Your task to perform on an android device: remove spam from my inbox in the gmail app Image 0: 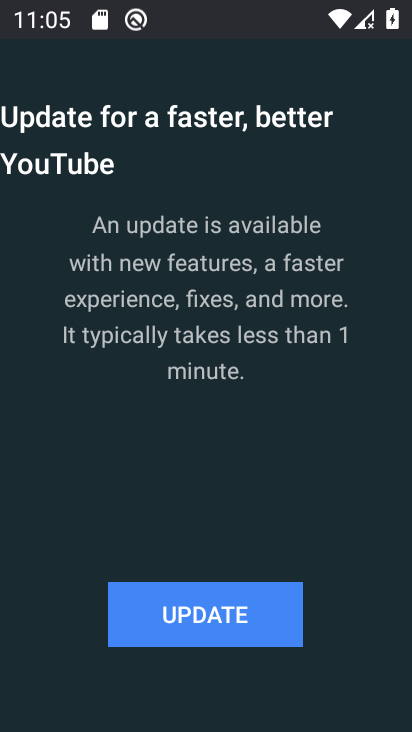
Step 0: press home button
Your task to perform on an android device: remove spam from my inbox in the gmail app Image 1: 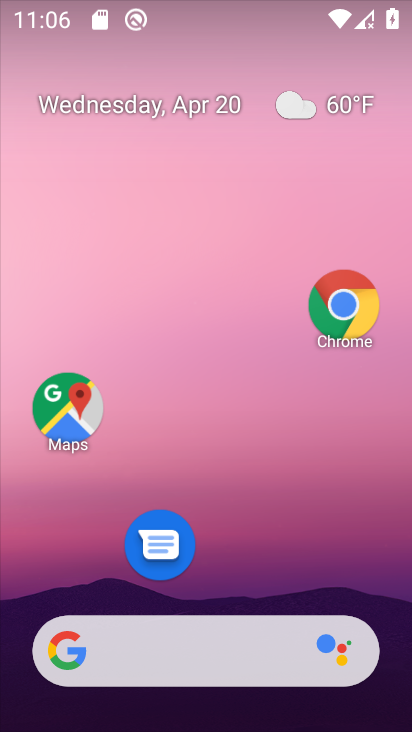
Step 1: drag from (193, 554) to (284, 178)
Your task to perform on an android device: remove spam from my inbox in the gmail app Image 2: 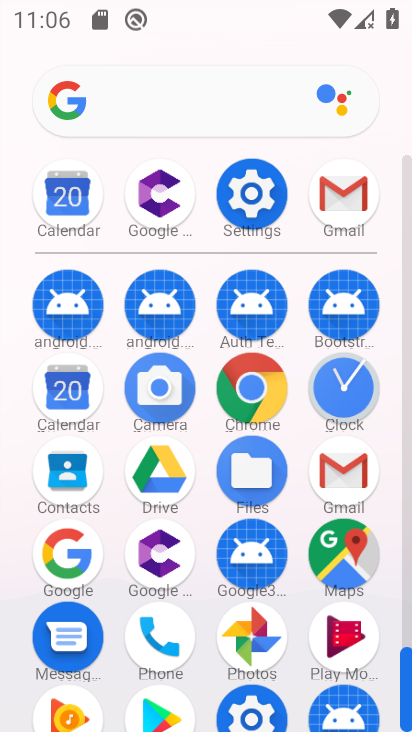
Step 2: click (349, 482)
Your task to perform on an android device: remove spam from my inbox in the gmail app Image 3: 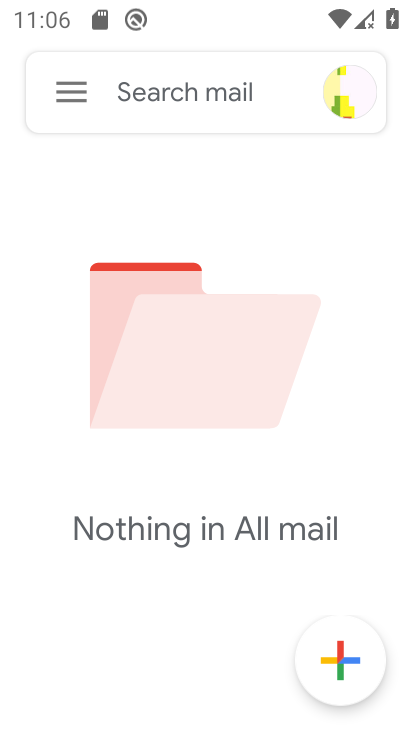
Step 3: click (75, 98)
Your task to perform on an android device: remove spam from my inbox in the gmail app Image 4: 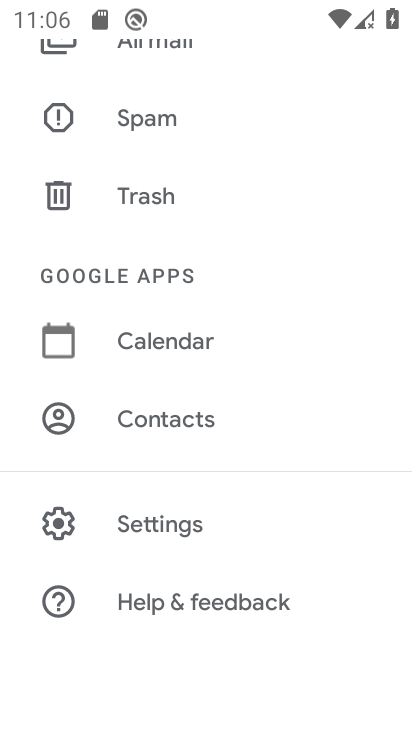
Step 4: drag from (153, 199) to (166, 656)
Your task to perform on an android device: remove spam from my inbox in the gmail app Image 5: 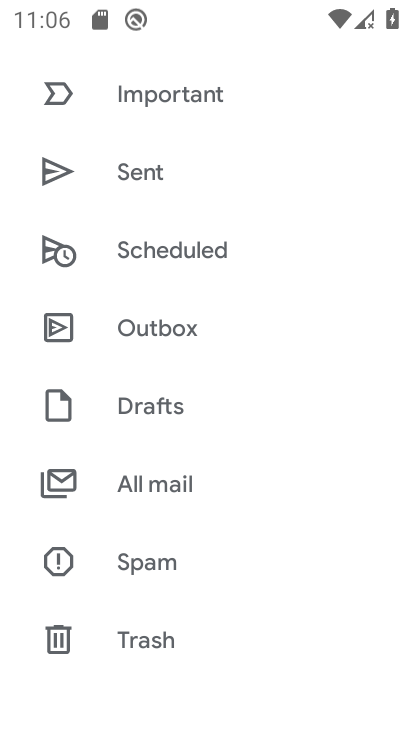
Step 5: drag from (195, 270) to (176, 683)
Your task to perform on an android device: remove spam from my inbox in the gmail app Image 6: 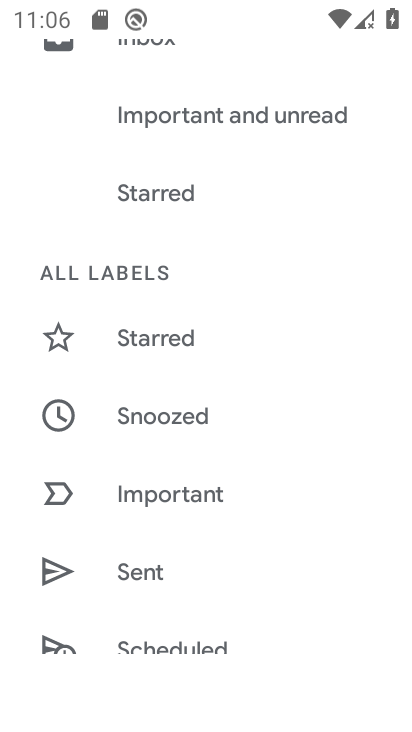
Step 6: drag from (184, 380) to (165, 530)
Your task to perform on an android device: remove spam from my inbox in the gmail app Image 7: 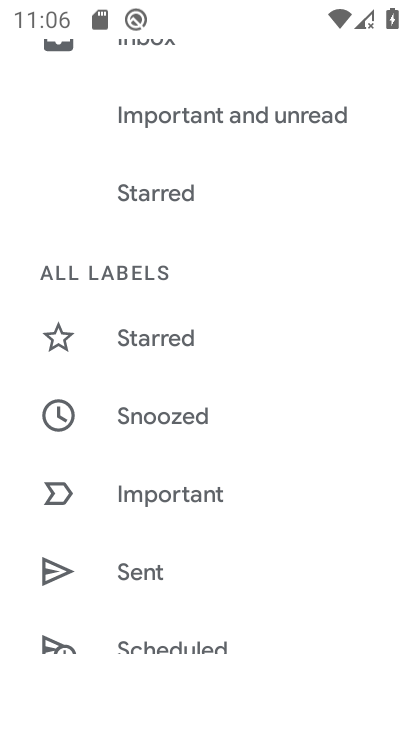
Step 7: drag from (271, 289) to (248, 568)
Your task to perform on an android device: remove spam from my inbox in the gmail app Image 8: 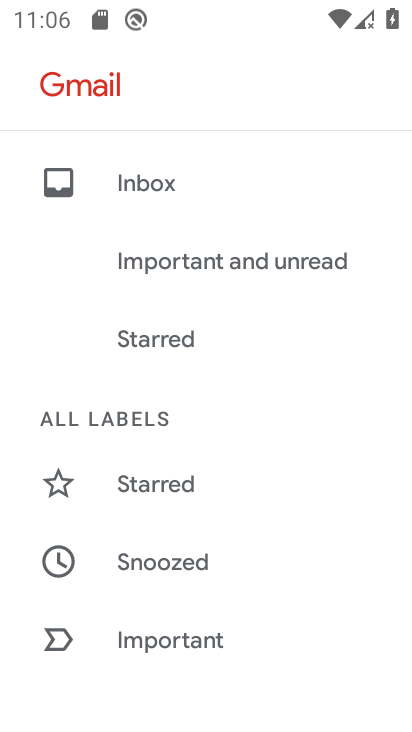
Step 8: click (218, 192)
Your task to perform on an android device: remove spam from my inbox in the gmail app Image 9: 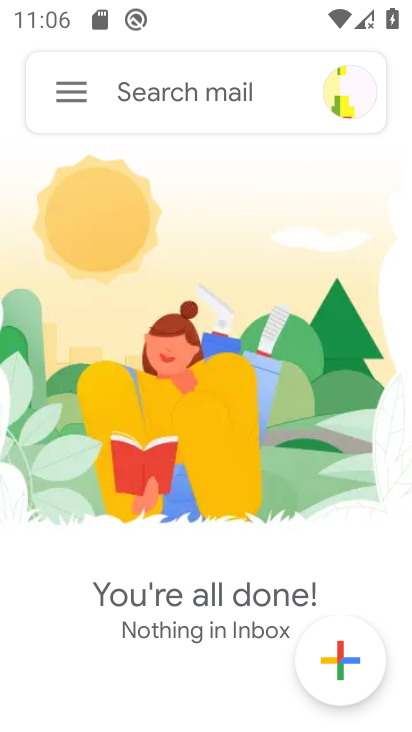
Step 9: task complete